Your task to perform on an android device: Go to Yahoo.com Image 0: 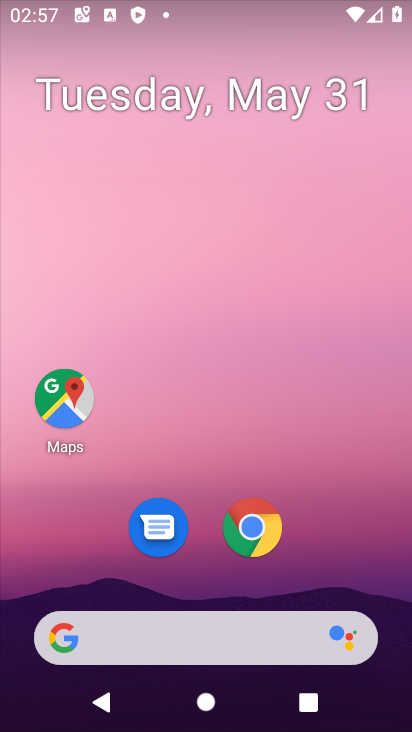
Step 0: click (253, 532)
Your task to perform on an android device: Go to Yahoo.com Image 1: 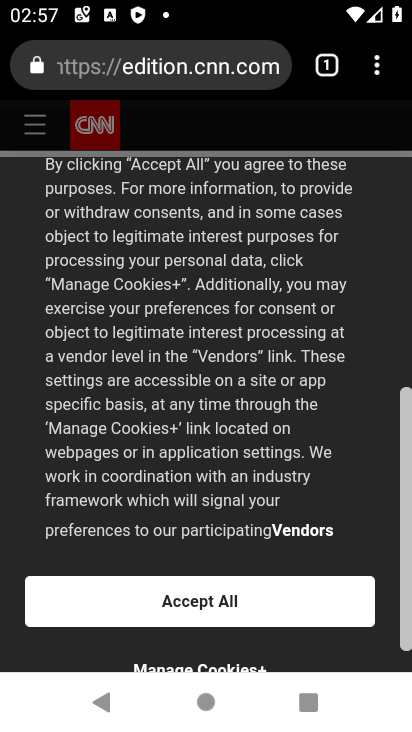
Step 1: click (278, 67)
Your task to perform on an android device: Go to Yahoo.com Image 2: 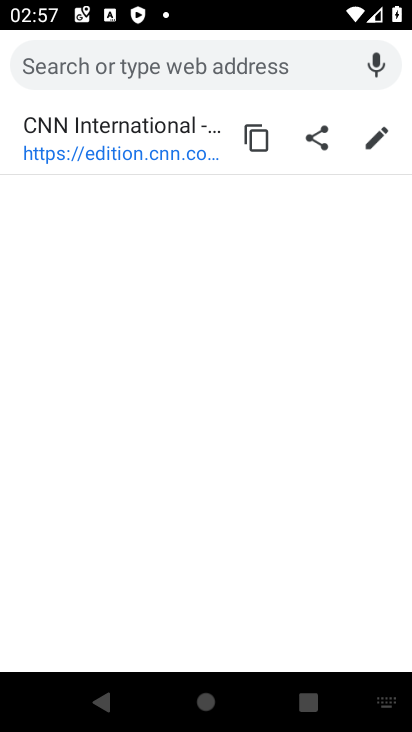
Step 2: type "yahoo.com"
Your task to perform on an android device: Go to Yahoo.com Image 3: 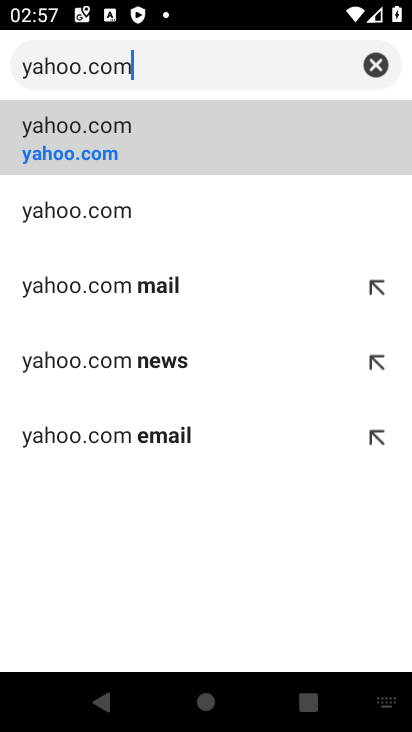
Step 3: click (78, 140)
Your task to perform on an android device: Go to Yahoo.com Image 4: 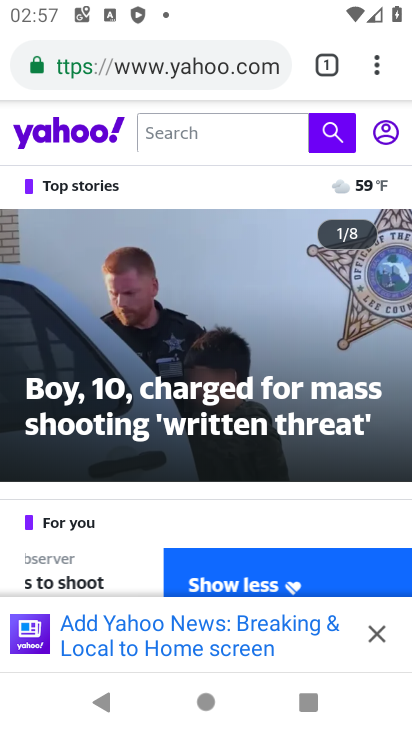
Step 4: click (222, 233)
Your task to perform on an android device: Go to Yahoo.com Image 5: 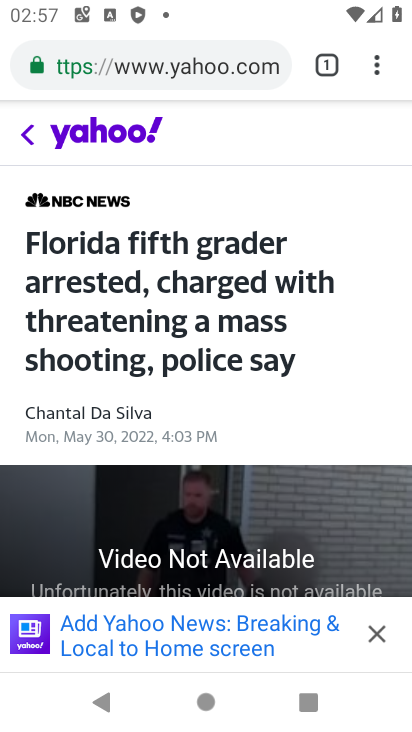
Step 5: task complete